Your task to perform on an android device: Open internet settings Image 0: 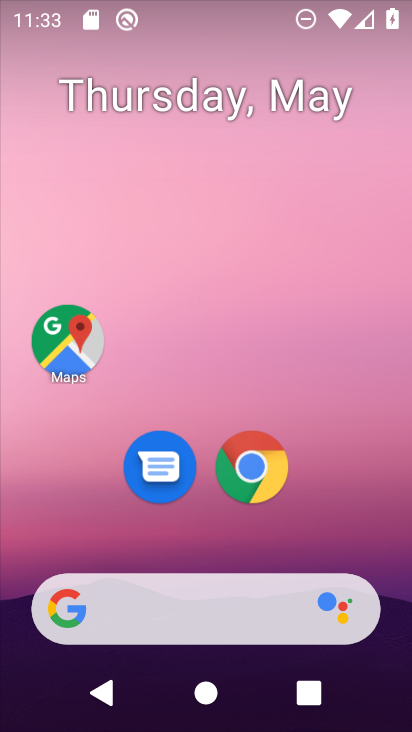
Step 0: drag from (207, 550) to (278, 147)
Your task to perform on an android device: Open internet settings Image 1: 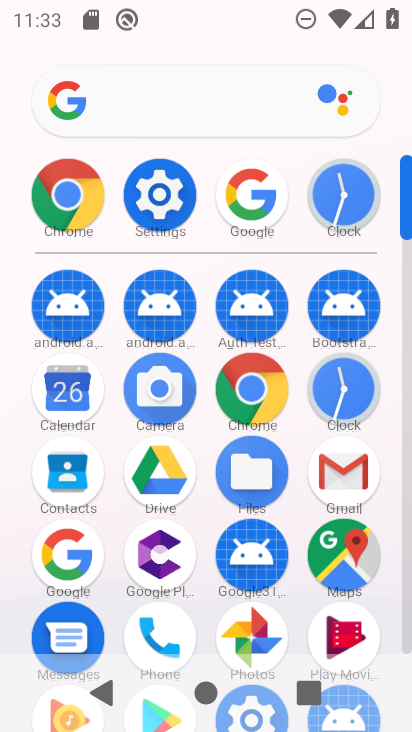
Step 1: drag from (281, 260) to (320, 13)
Your task to perform on an android device: Open internet settings Image 2: 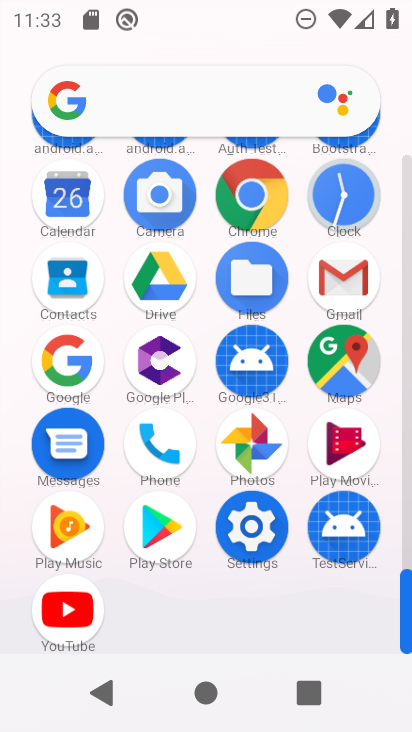
Step 2: click (255, 539)
Your task to perform on an android device: Open internet settings Image 3: 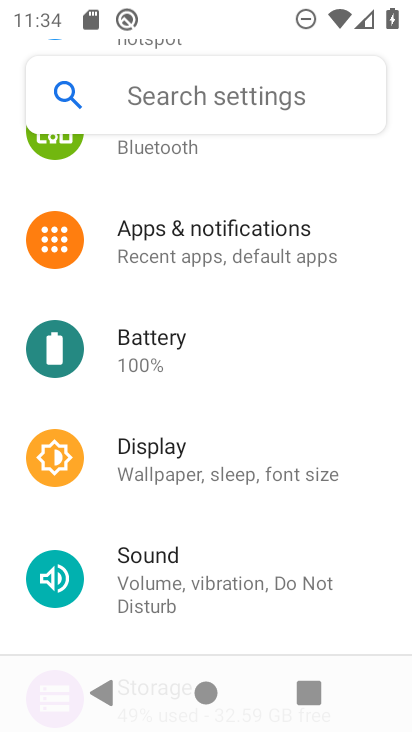
Step 3: drag from (234, 200) to (255, 534)
Your task to perform on an android device: Open internet settings Image 4: 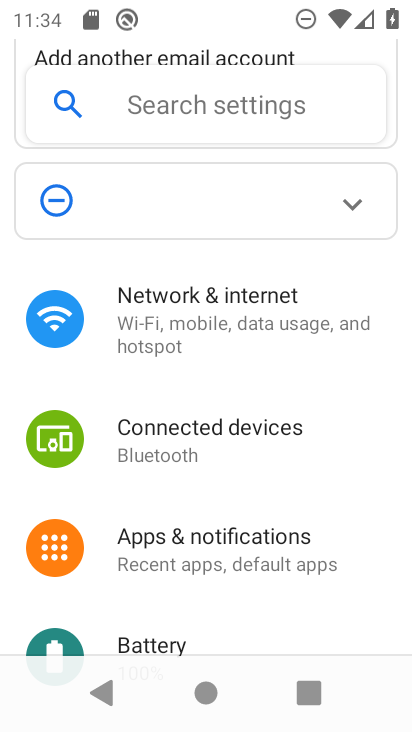
Step 4: click (215, 338)
Your task to perform on an android device: Open internet settings Image 5: 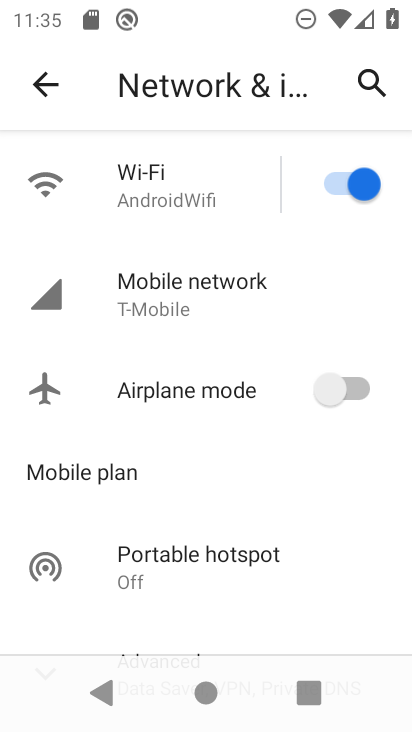
Step 5: click (231, 313)
Your task to perform on an android device: Open internet settings Image 6: 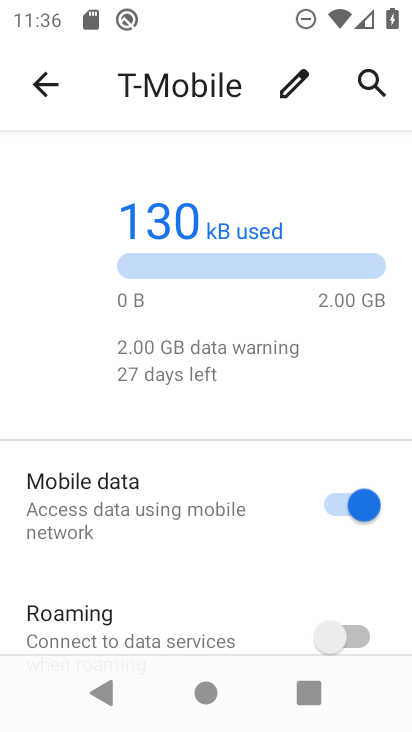
Step 6: task complete